Your task to perform on an android device: search for starred emails in the gmail app Image 0: 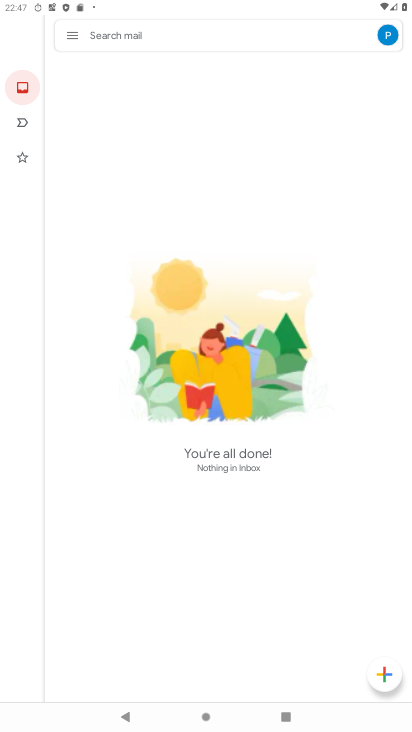
Step 0: press home button
Your task to perform on an android device: search for starred emails in the gmail app Image 1: 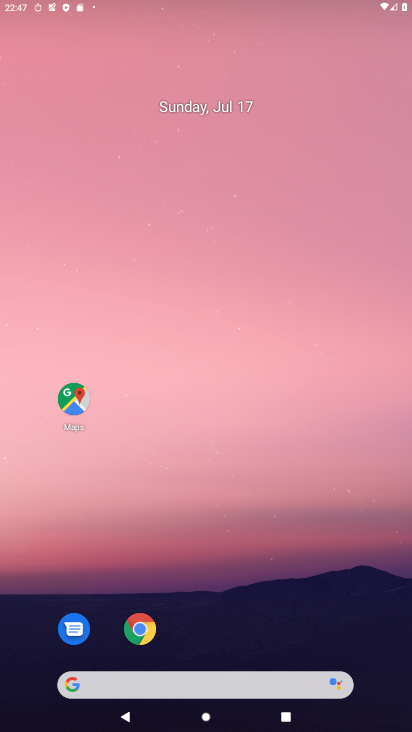
Step 1: drag from (231, 714) to (223, 108)
Your task to perform on an android device: search for starred emails in the gmail app Image 2: 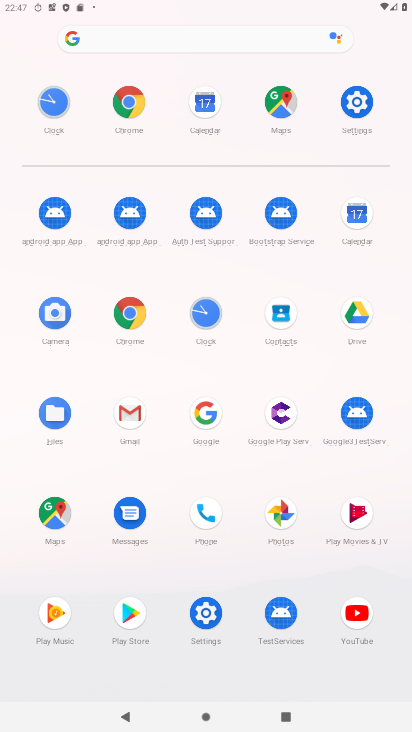
Step 2: click (130, 409)
Your task to perform on an android device: search for starred emails in the gmail app Image 3: 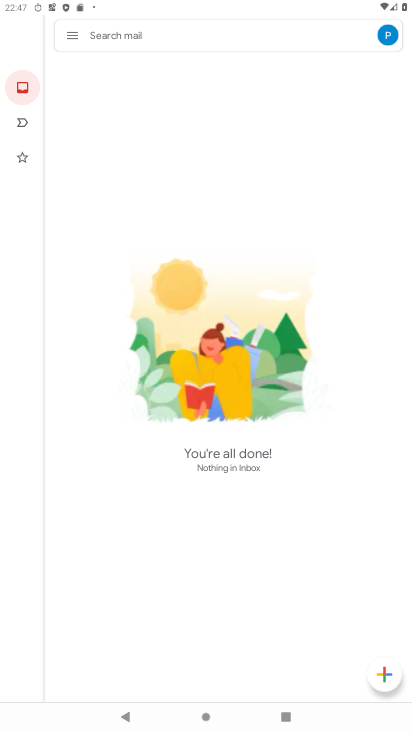
Step 3: click (70, 39)
Your task to perform on an android device: search for starred emails in the gmail app Image 4: 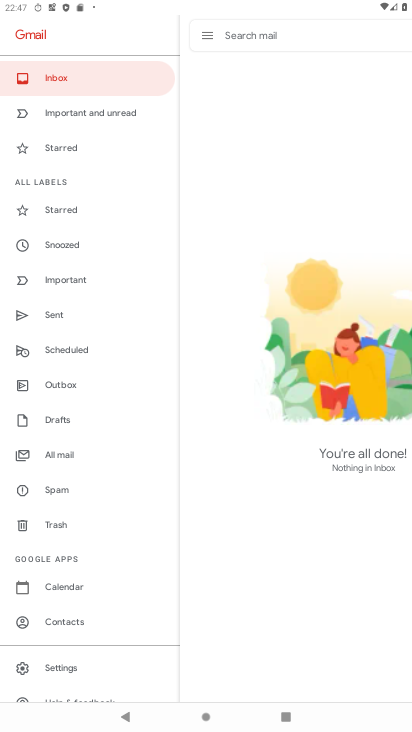
Step 4: click (60, 144)
Your task to perform on an android device: search for starred emails in the gmail app Image 5: 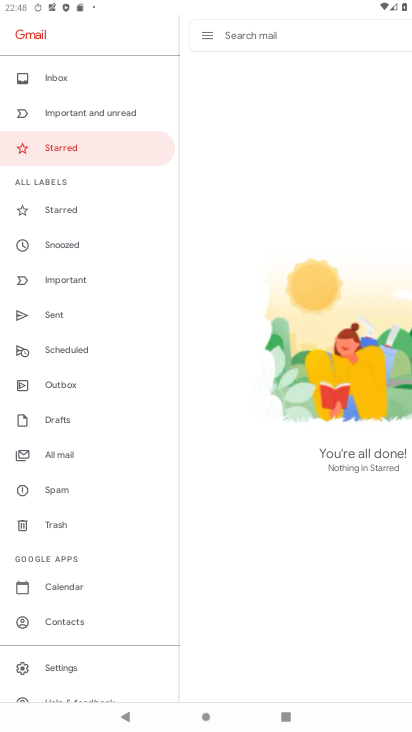
Step 5: task complete